Your task to perform on an android device: Turn off the flashlight Image 0: 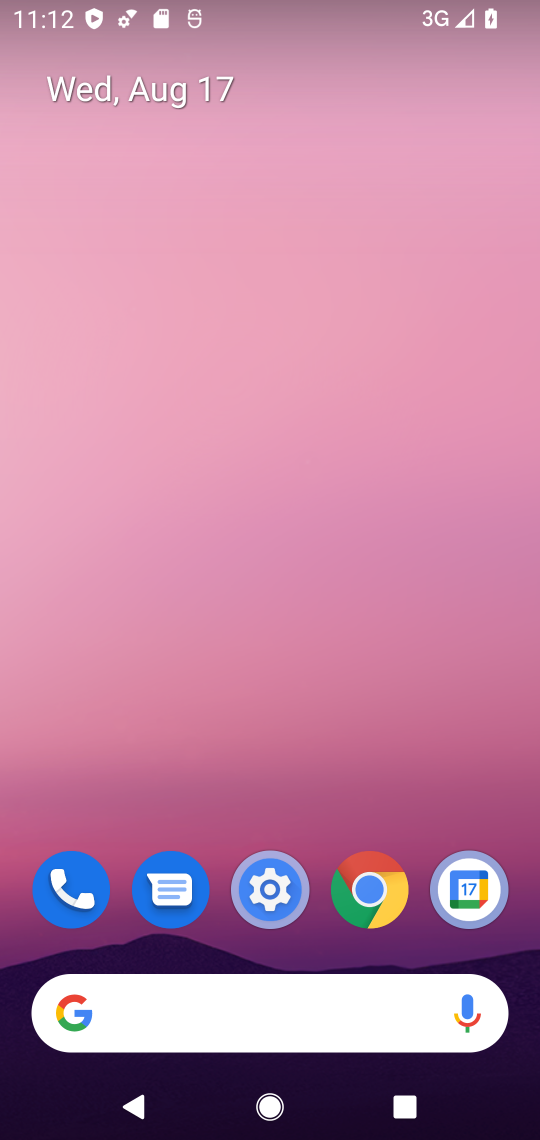
Step 0: click (272, 886)
Your task to perform on an android device: Turn off the flashlight Image 1: 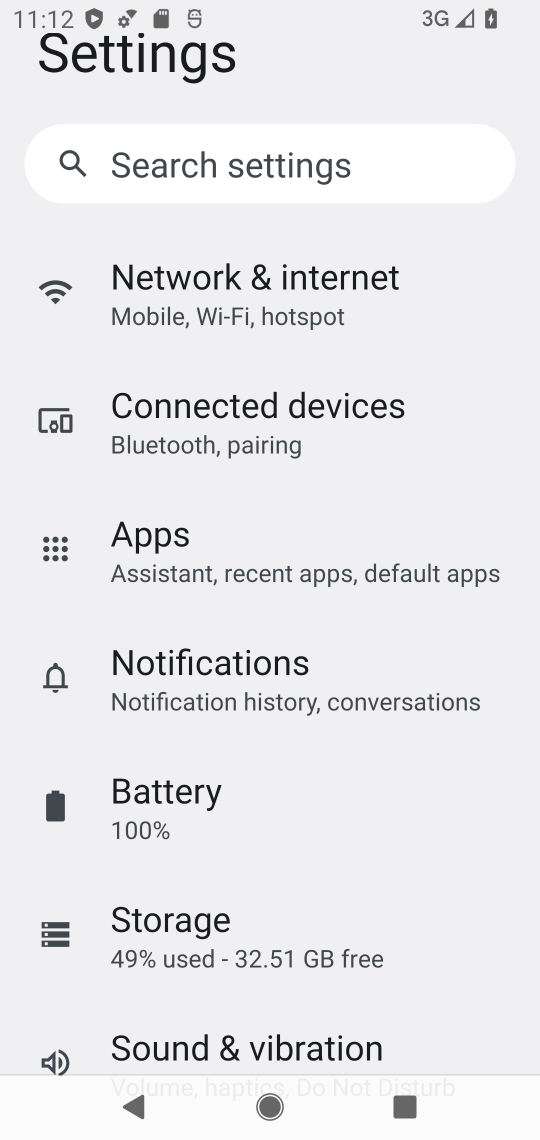
Step 1: click (302, 168)
Your task to perform on an android device: Turn off the flashlight Image 2: 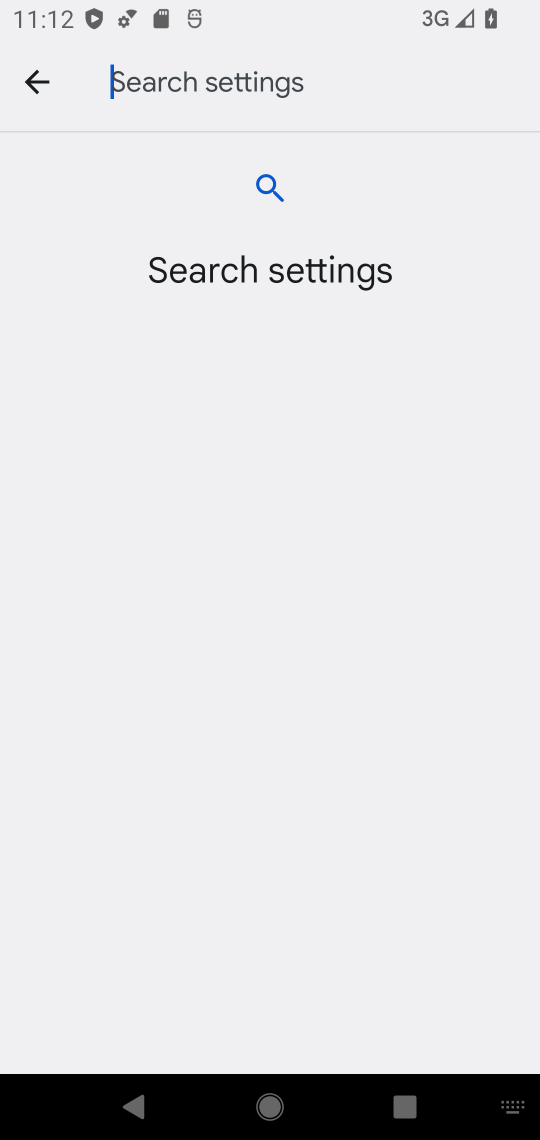
Step 2: type "Flashlight"
Your task to perform on an android device: Turn off the flashlight Image 3: 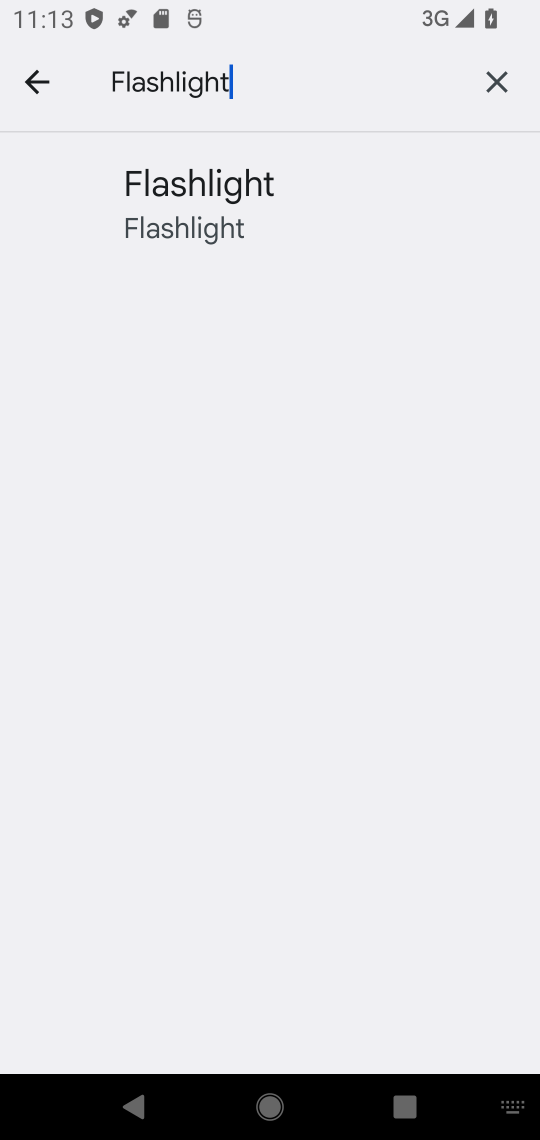
Step 3: click (246, 193)
Your task to perform on an android device: Turn off the flashlight Image 4: 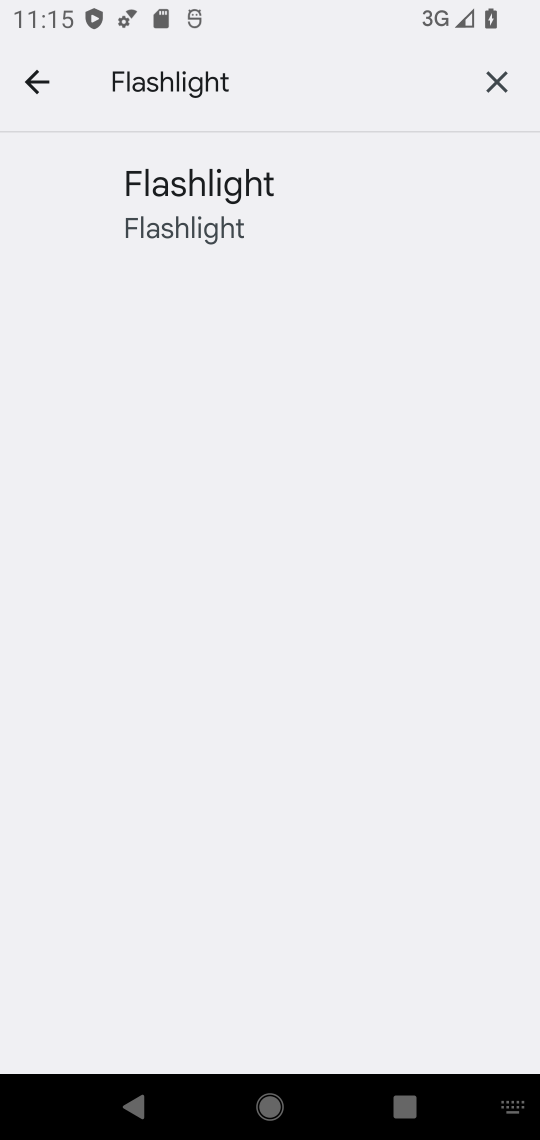
Step 4: task complete